Your task to perform on an android device: Open Google Image 0: 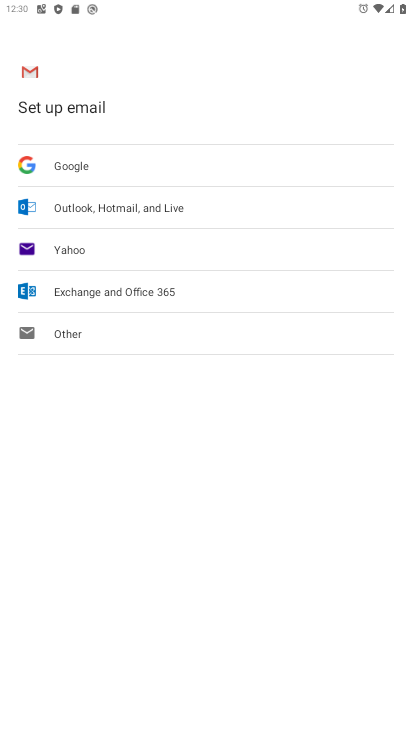
Step 0: press home button
Your task to perform on an android device: Open Google Image 1: 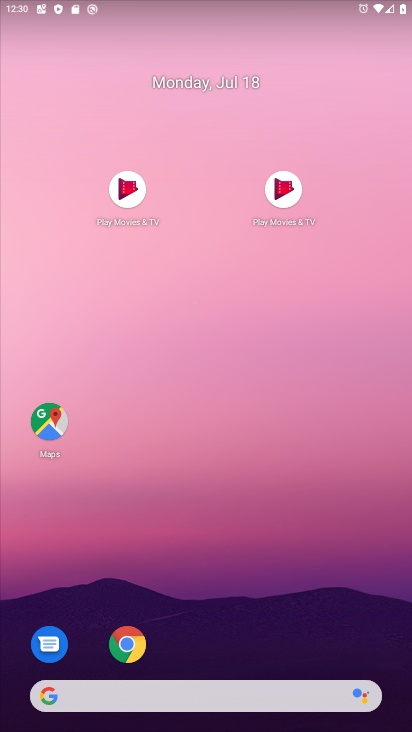
Step 1: drag from (273, 493) to (240, 43)
Your task to perform on an android device: Open Google Image 2: 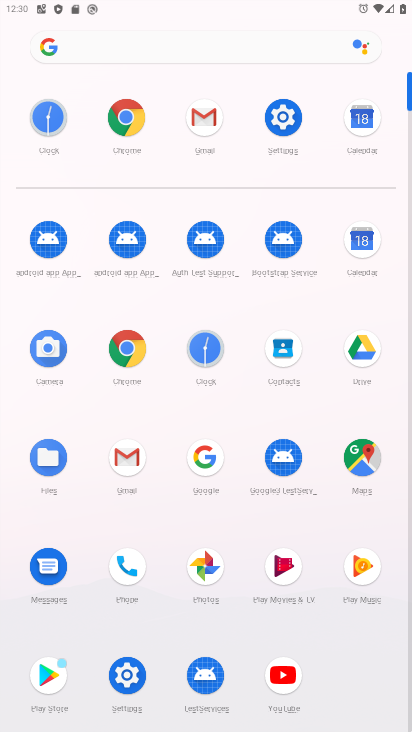
Step 2: click (211, 459)
Your task to perform on an android device: Open Google Image 3: 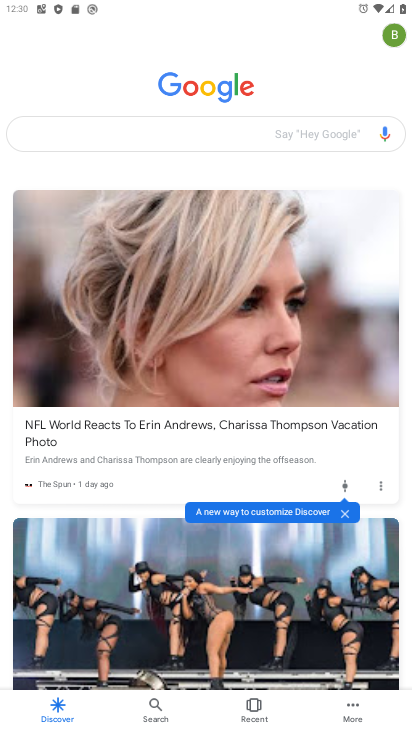
Step 3: task complete